Your task to perform on an android device: open wifi settings Image 0: 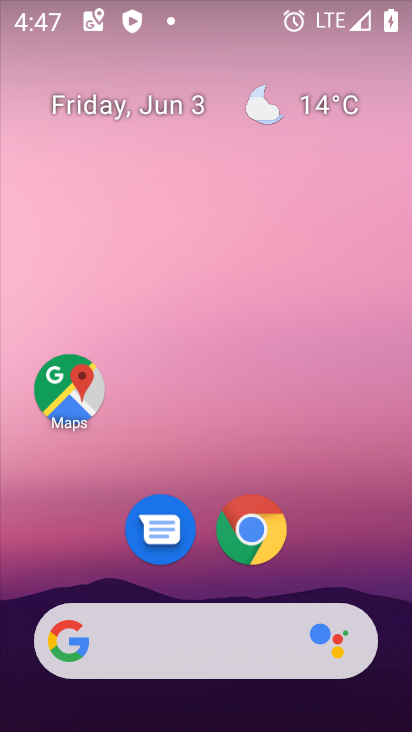
Step 0: press home button
Your task to perform on an android device: open wifi settings Image 1: 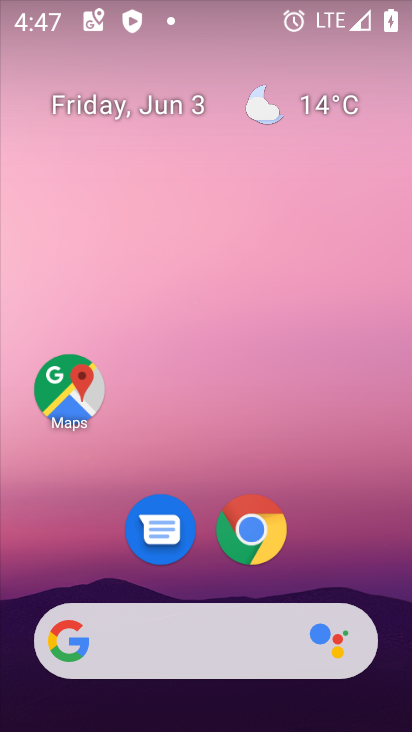
Step 1: drag from (207, 578) to (183, 83)
Your task to perform on an android device: open wifi settings Image 2: 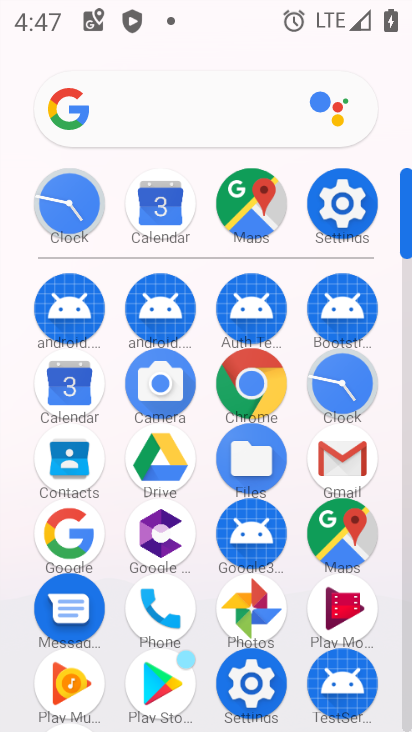
Step 2: click (341, 192)
Your task to perform on an android device: open wifi settings Image 3: 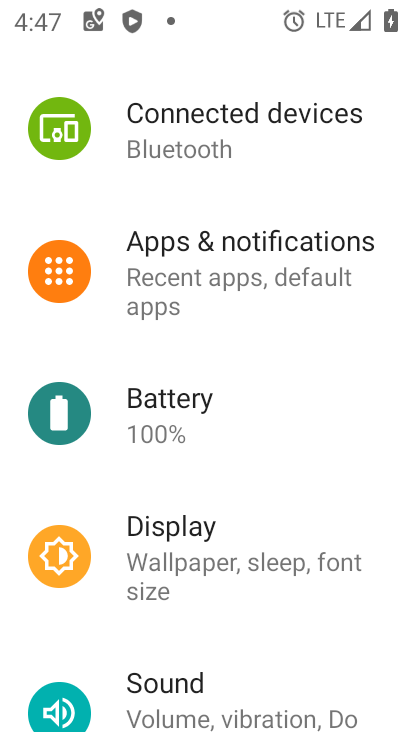
Step 3: drag from (106, 121) to (92, 719)
Your task to perform on an android device: open wifi settings Image 4: 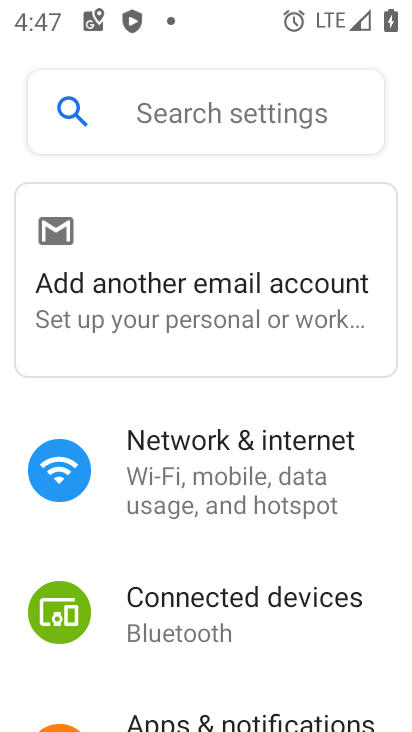
Step 4: click (124, 470)
Your task to perform on an android device: open wifi settings Image 5: 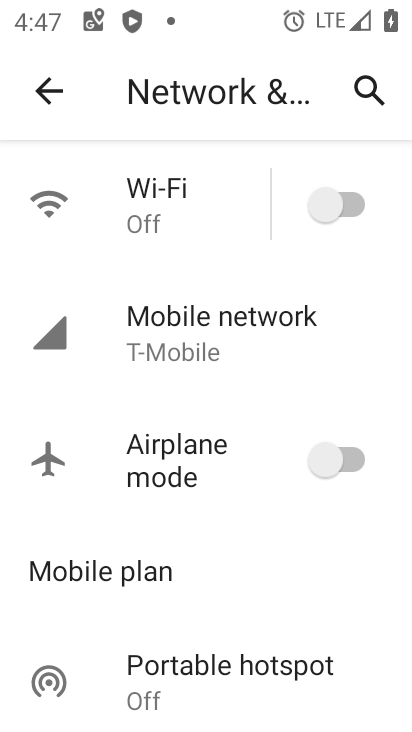
Step 5: click (242, 193)
Your task to perform on an android device: open wifi settings Image 6: 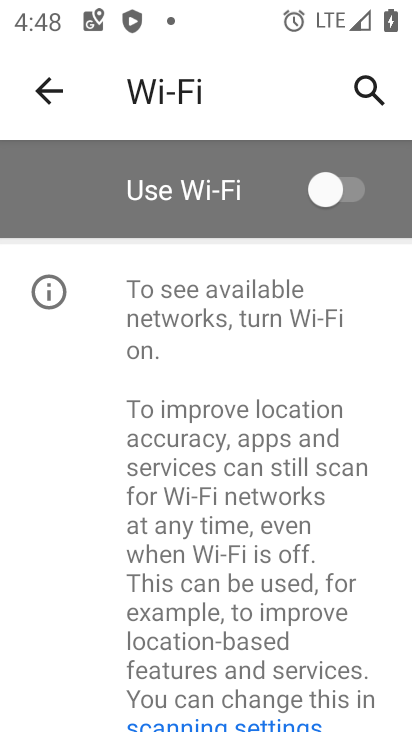
Step 6: click (351, 179)
Your task to perform on an android device: open wifi settings Image 7: 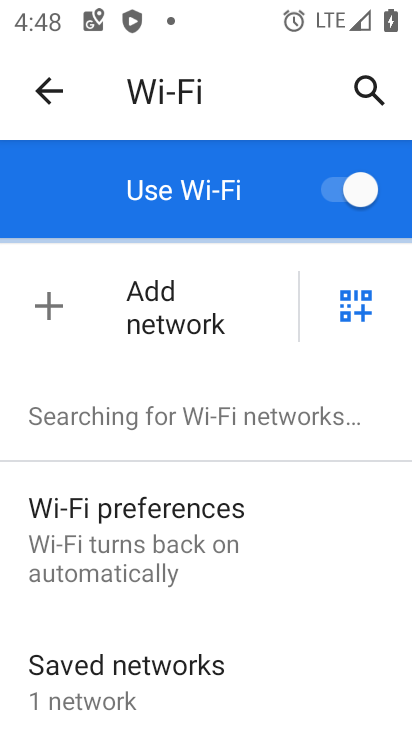
Step 7: task complete